Your task to perform on an android device: toggle sleep mode Image 0: 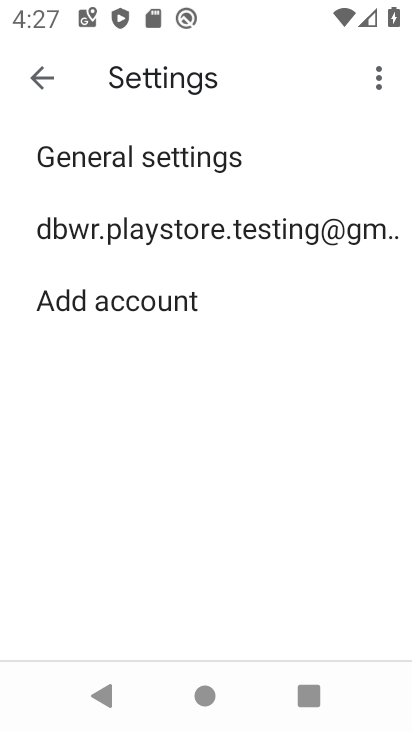
Step 0: press back button
Your task to perform on an android device: toggle sleep mode Image 1: 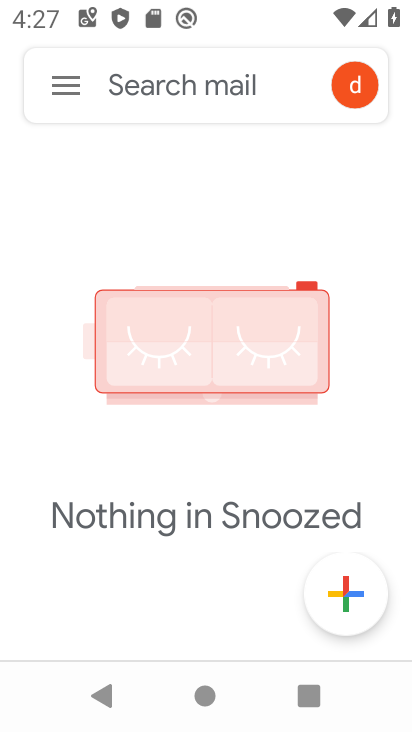
Step 1: press back button
Your task to perform on an android device: toggle sleep mode Image 2: 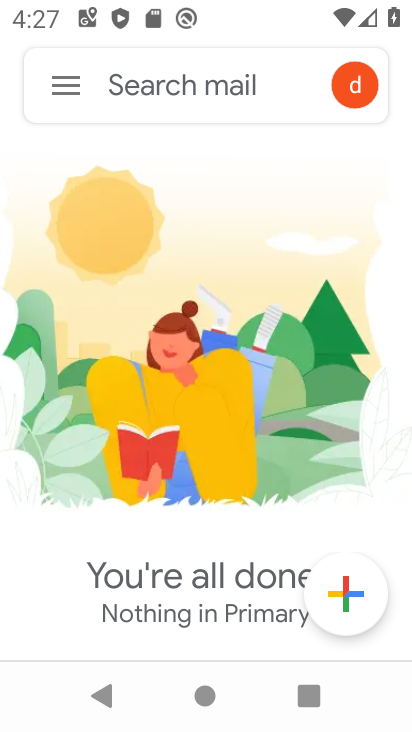
Step 2: press back button
Your task to perform on an android device: toggle sleep mode Image 3: 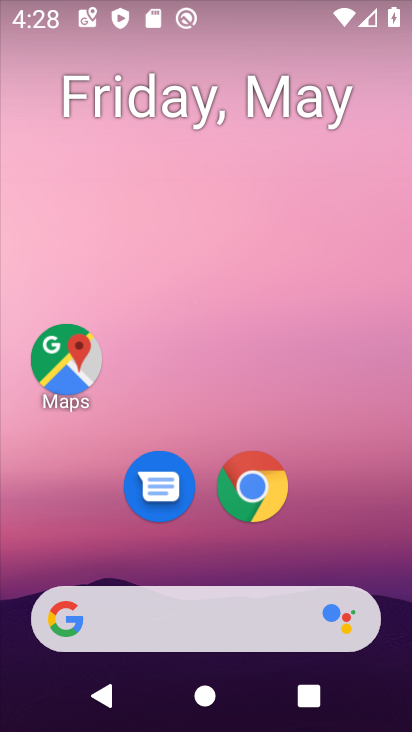
Step 3: drag from (344, 498) to (266, 0)
Your task to perform on an android device: toggle sleep mode Image 4: 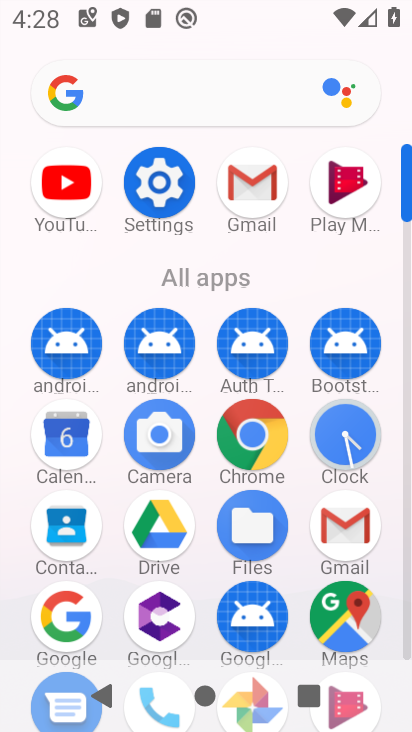
Step 4: drag from (11, 496) to (19, 154)
Your task to perform on an android device: toggle sleep mode Image 5: 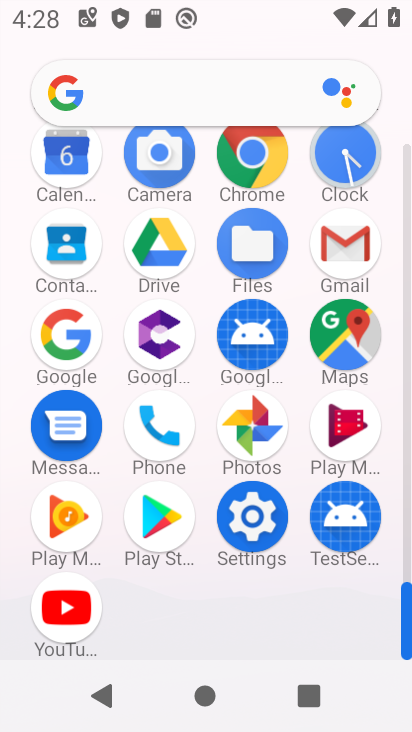
Step 5: click (255, 515)
Your task to perform on an android device: toggle sleep mode Image 6: 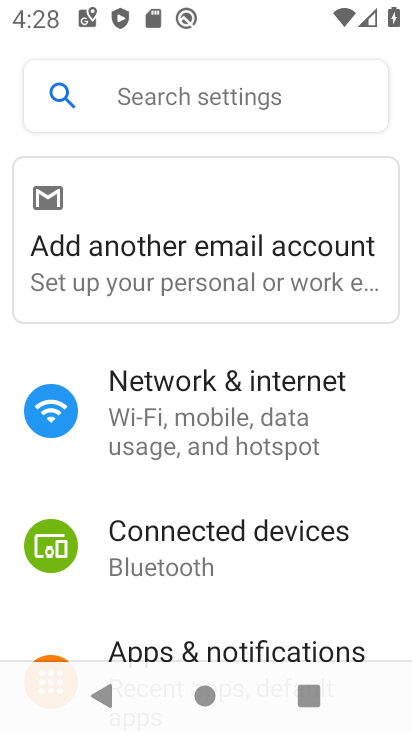
Step 6: drag from (264, 459) to (252, 124)
Your task to perform on an android device: toggle sleep mode Image 7: 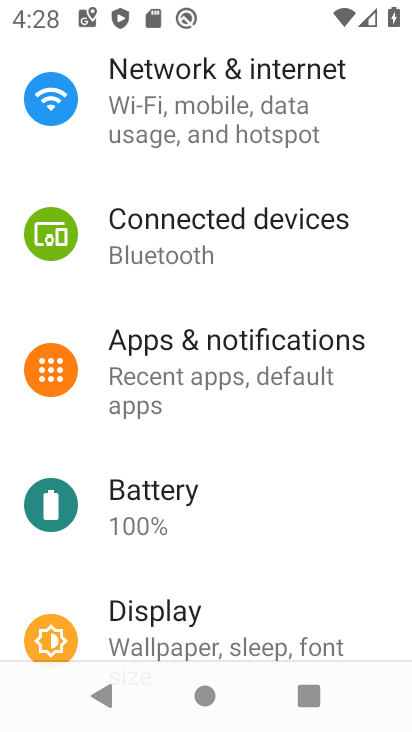
Step 7: drag from (231, 518) to (281, 95)
Your task to perform on an android device: toggle sleep mode Image 8: 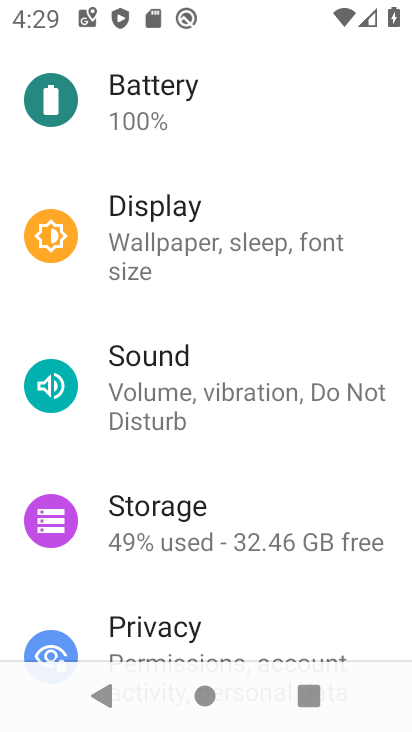
Step 8: click (216, 225)
Your task to perform on an android device: toggle sleep mode Image 9: 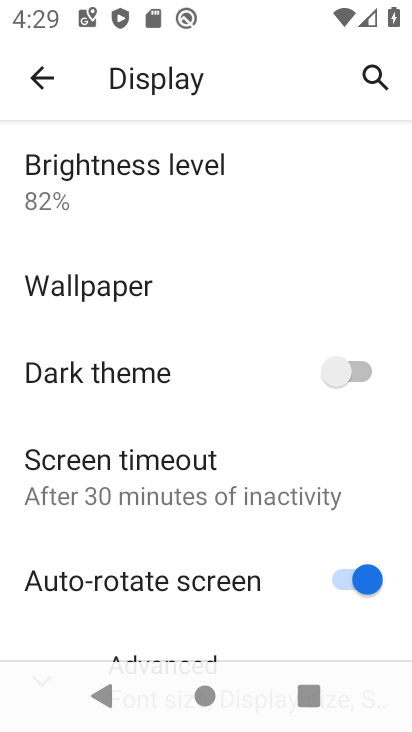
Step 9: drag from (168, 526) to (183, 159)
Your task to perform on an android device: toggle sleep mode Image 10: 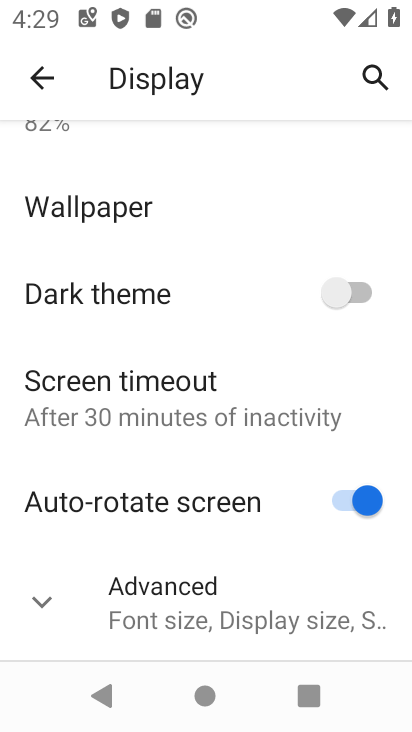
Step 10: click (53, 597)
Your task to perform on an android device: toggle sleep mode Image 11: 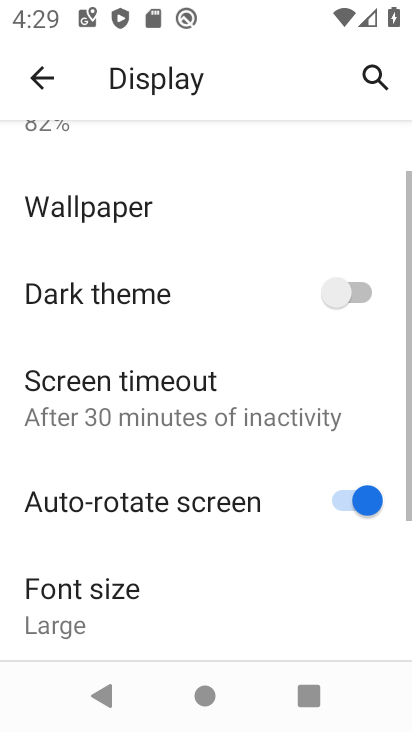
Step 11: task complete